Your task to perform on an android device: Go to notification settings Image 0: 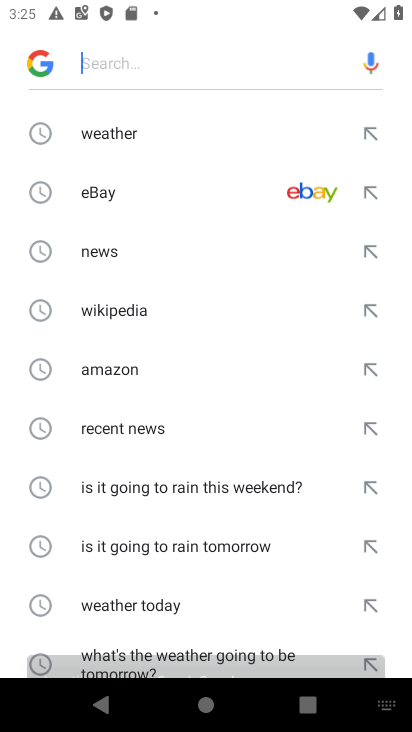
Step 0: press home button
Your task to perform on an android device: Go to notification settings Image 1: 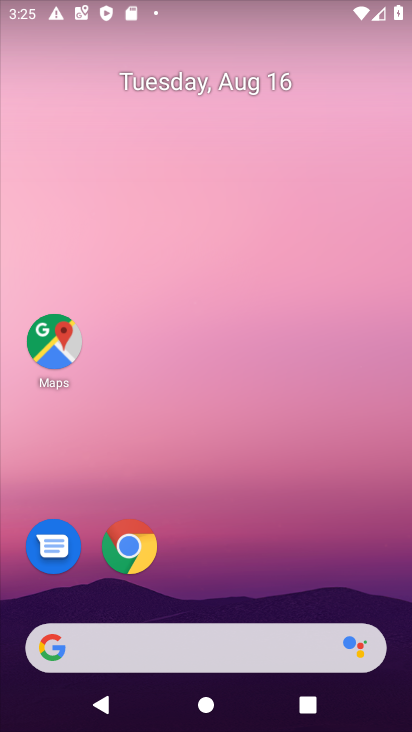
Step 1: drag from (308, 527) to (305, 90)
Your task to perform on an android device: Go to notification settings Image 2: 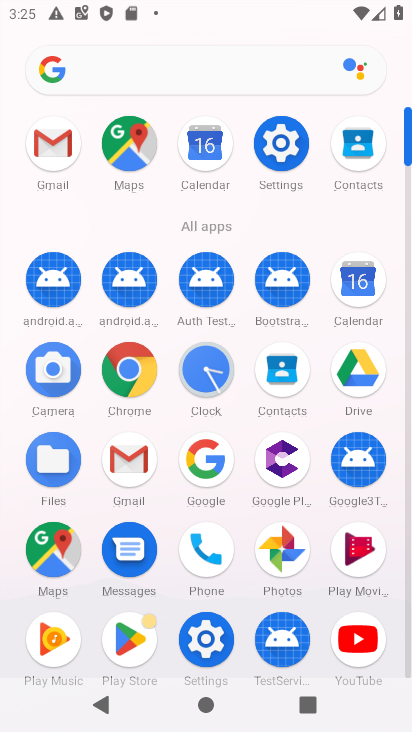
Step 2: click (279, 141)
Your task to perform on an android device: Go to notification settings Image 3: 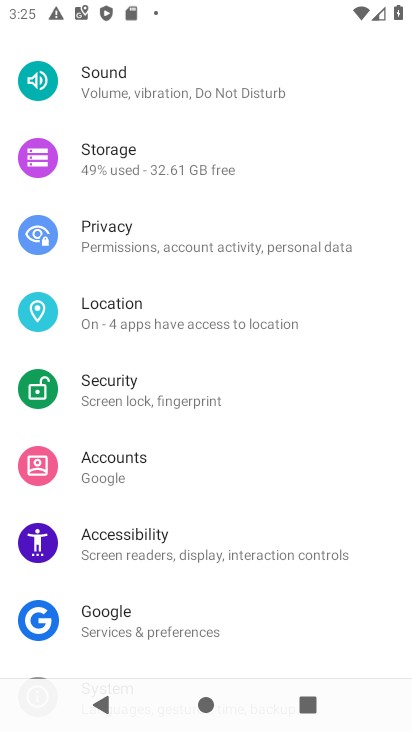
Step 3: drag from (358, 190) to (373, 347)
Your task to perform on an android device: Go to notification settings Image 4: 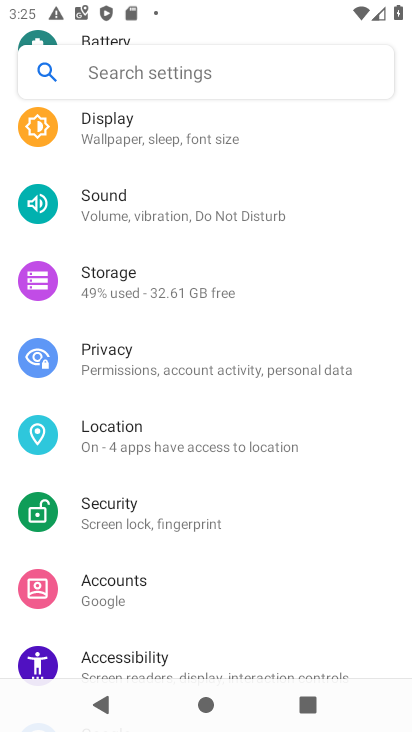
Step 4: drag from (366, 200) to (366, 356)
Your task to perform on an android device: Go to notification settings Image 5: 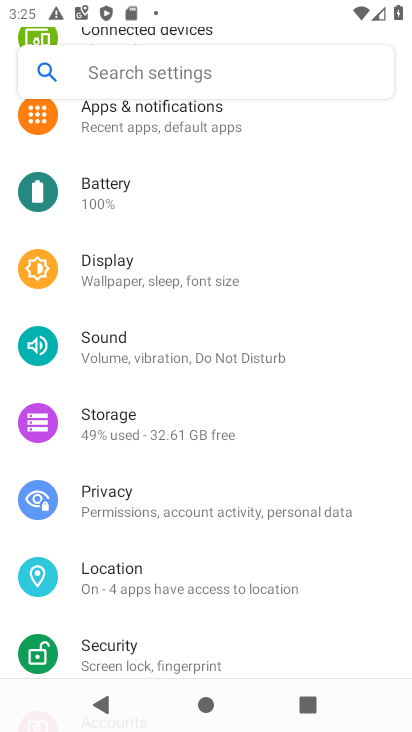
Step 5: drag from (352, 184) to (360, 346)
Your task to perform on an android device: Go to notification settings Image 6: 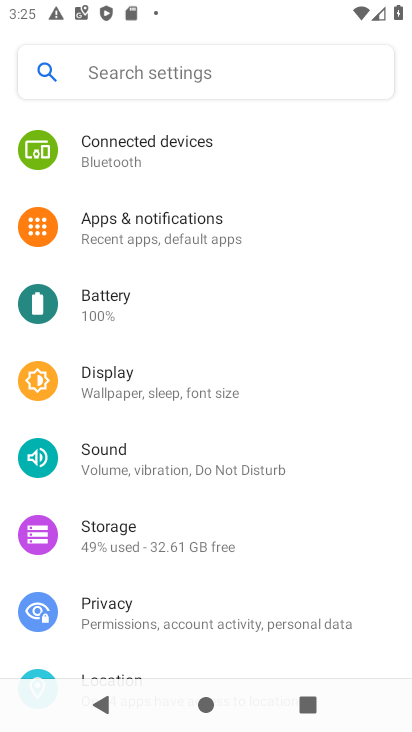
Step 6: drag from (349, 144) to (361, 359)
Your task to perform on an android device: Go to notification settings Image 7: 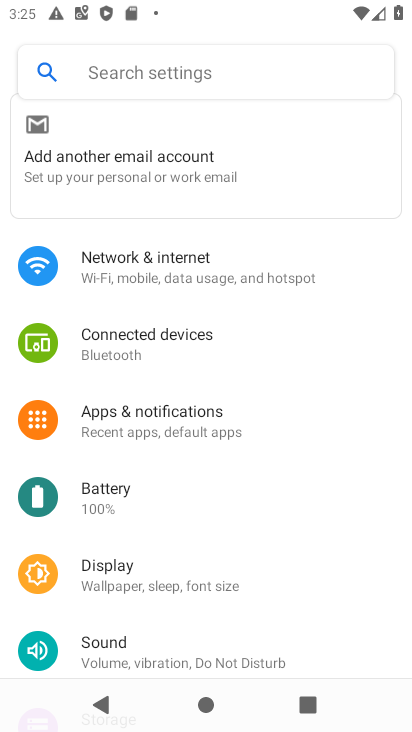
Step 7: click (234, 418)
Your task to perform on an android device: Go to notification settings Image 8: 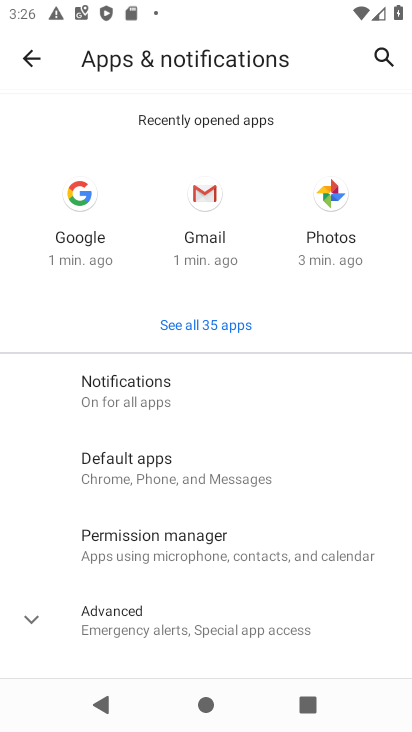
Step 8: click (229, 401)
Your task to perform on an android device: Go to notification settings Image 9: 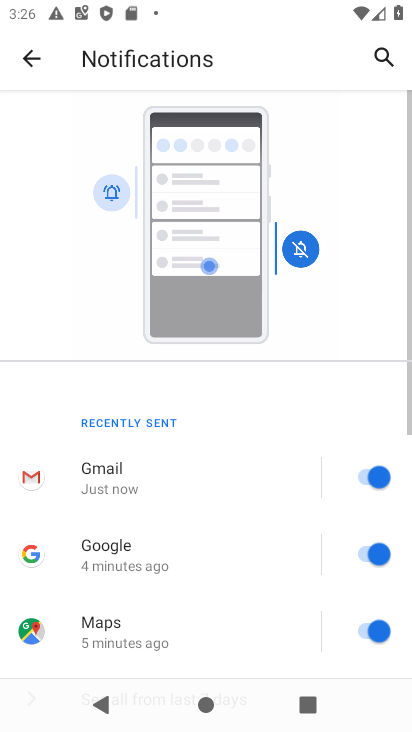
Step 9: task complete